Your task to perform on an android device: check the backup settings in the google photos Image 0: 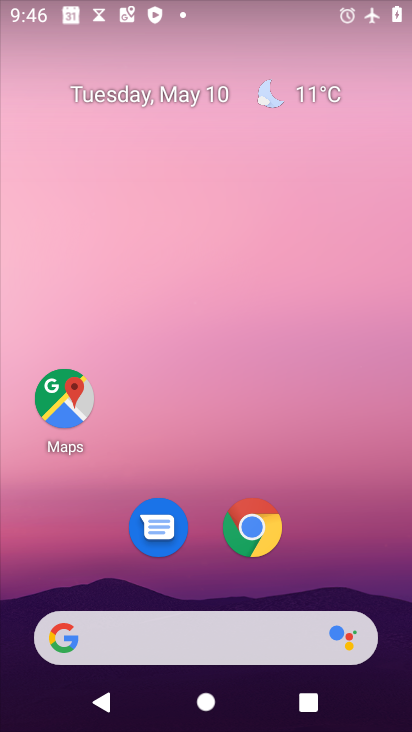
Step 0: drag from (374, 475) to (341, 0)
Your task to perform on an android device: check the backup settings in the google photos Image 1: 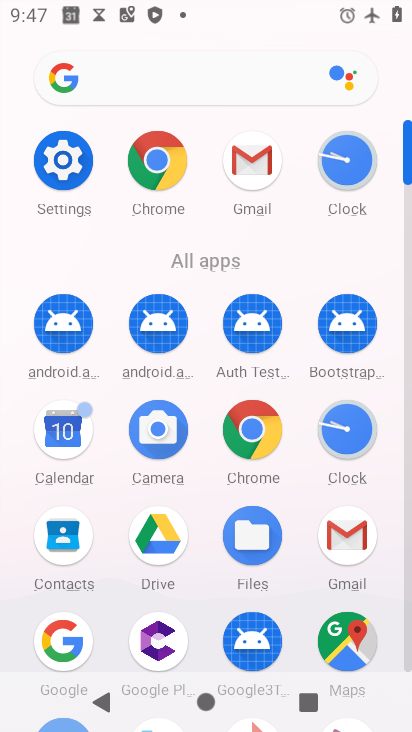
Step 1: click (57, 175)
Your task to perform on an android device: check the backup settings in the google photos Image 2: 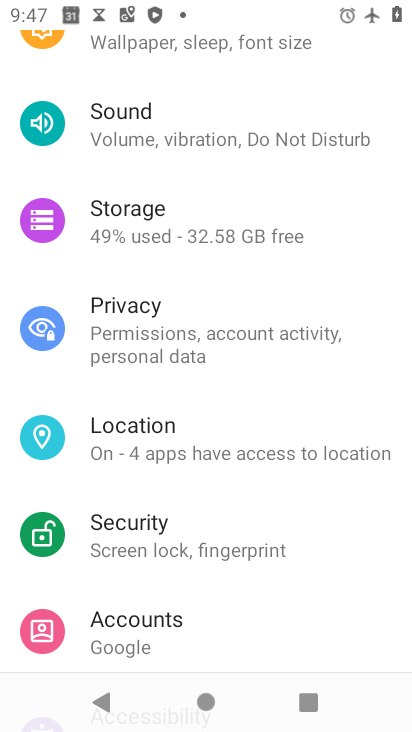
Step 2: press home button
Your task to perform on an android device: check the backup settings in the google photos Image 3: 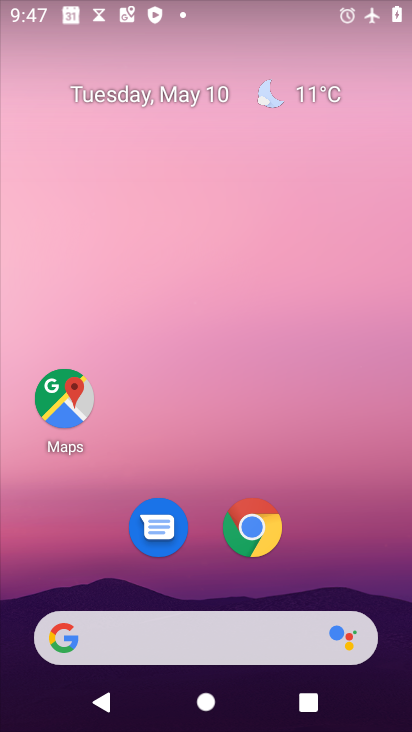
Step 3: drag from (392, 513) to (338, 58)
Your task to perform on an android device: check the backup settings in the google photos Image 4: 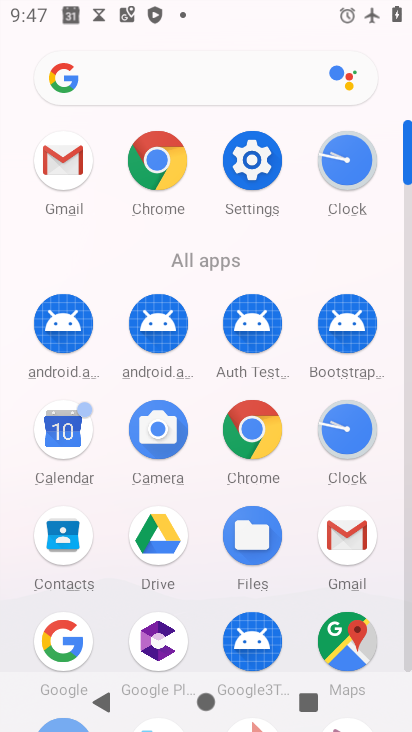
Step 4: drag from (204, 268) to (187, 26)
Your task to perform on an android device: check the backup settings in the google photos Image 5: 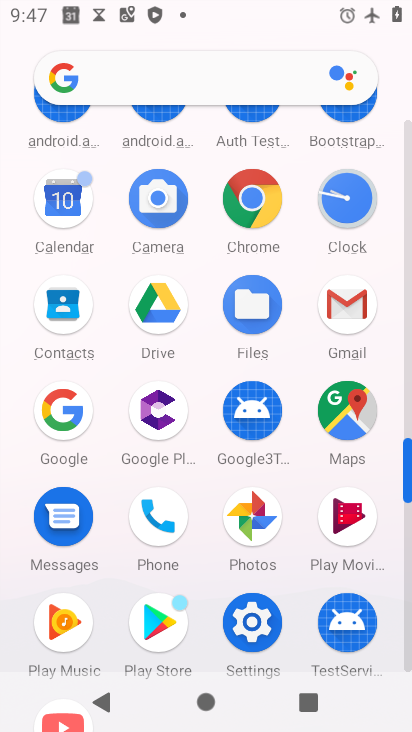
Step 5: click (246, 532)
Your task to perform on an android device: check the backup settings in the google photos Image 6: 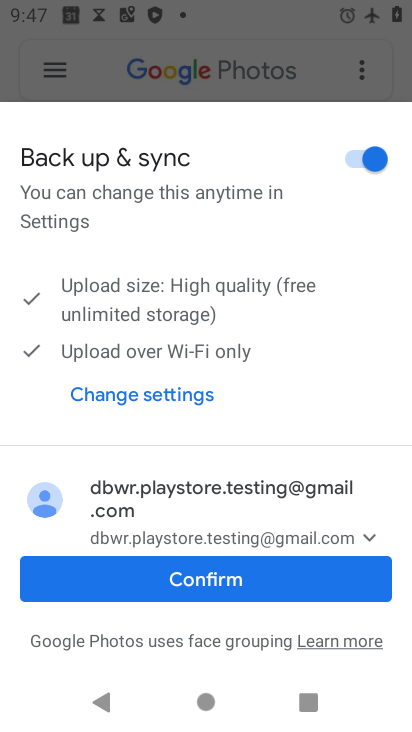
Step 6: click (203, 586)
Your task to perform on an android device: check the backup settings in the google photos Image 7: 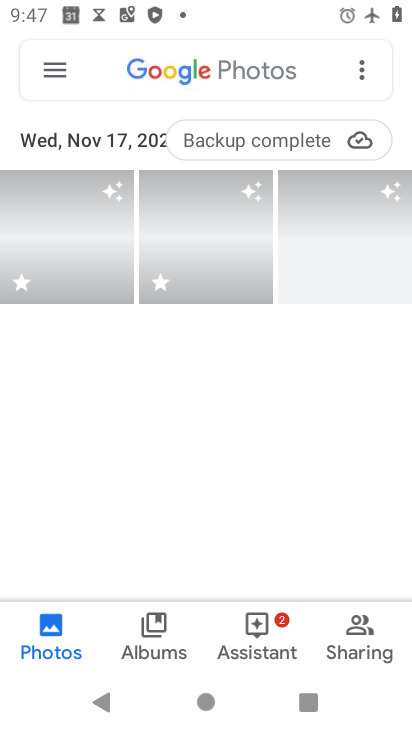
Step 7: click (60, 63)
Your task to perform on an android device: check the backup settings in the google photos Image 8: 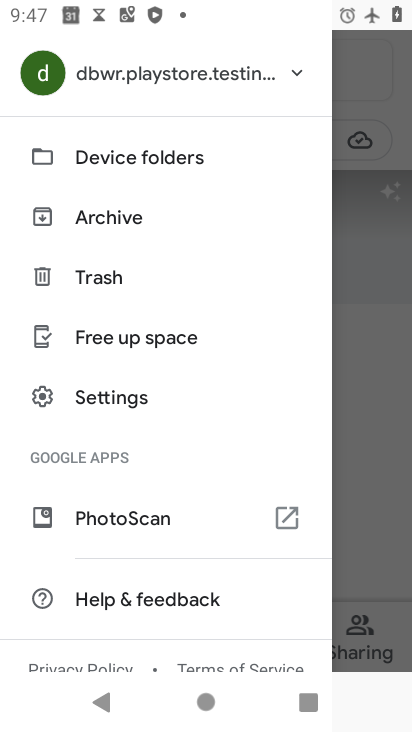
Step 8: click (108, 394)
Your task to perform on an android device: check the backup settings in the google photos Image 9: 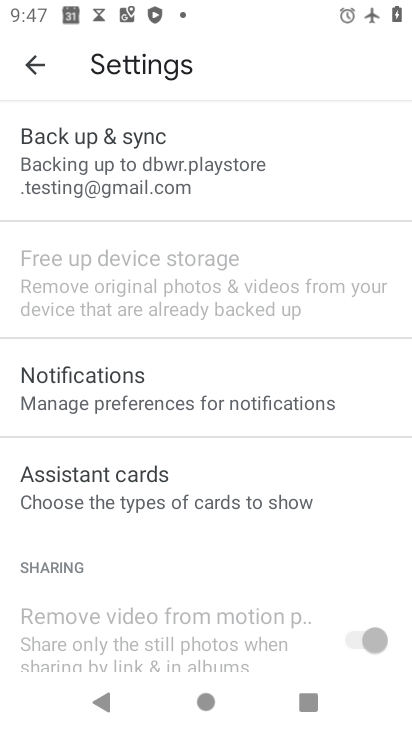
Step 9: click (166, 196)
Your task to perform on an android device: check the backup settings in the google photos Image 10: 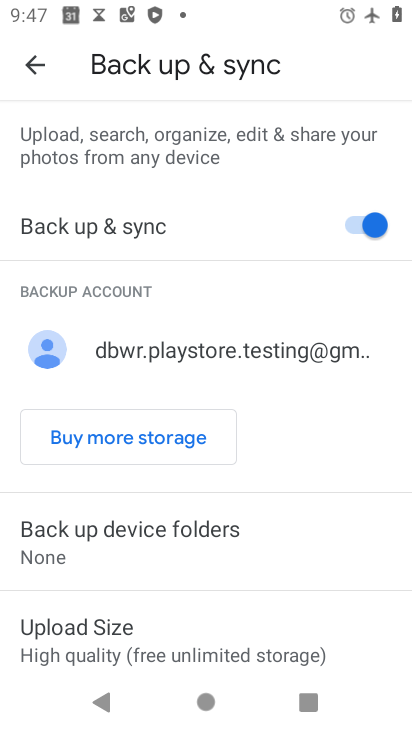
Step 10: task complete